Your task to perform on an android device: Search for pizza restaurants on Maps Image 0: 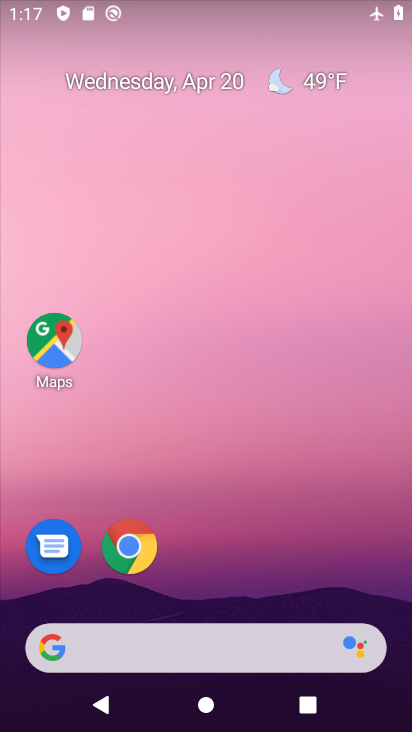
Step 0: click (391, 85)
Your task to perform on an android device: Search for pizza restaurants on Maps Image 1: 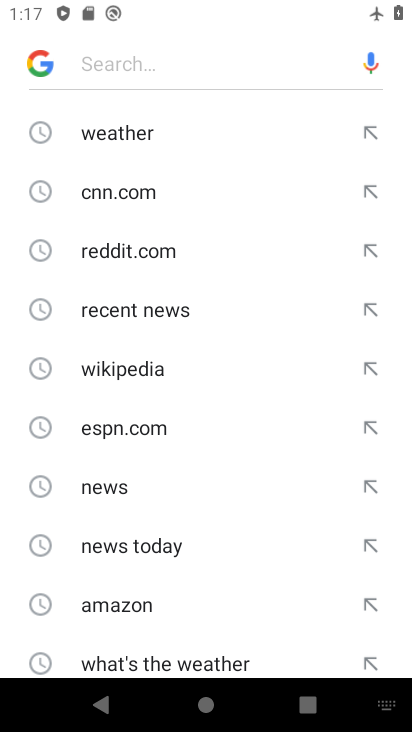
Step 1: press home button
Your task to perform on an android device: Search for pizza restaurants on Maps Image 2: 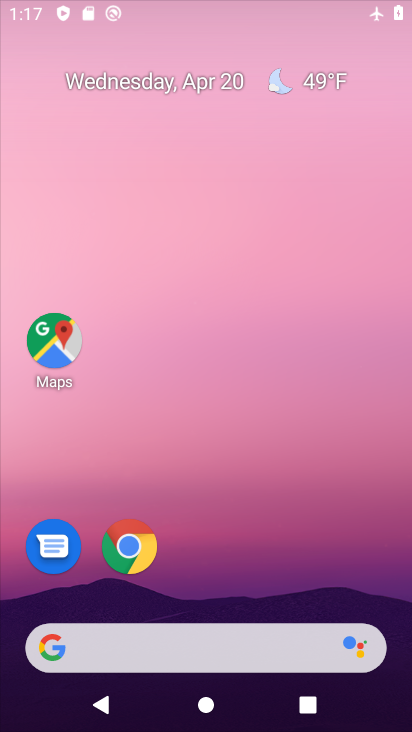
Step 2: drag from (221, 541) to (236, 193)
Your task to perform on an android device: Search for pizza restaurants on Maps Image 3: 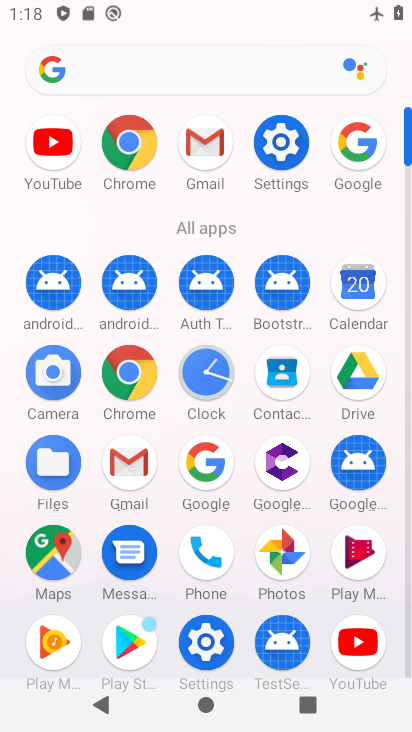
Step 3: click (52, 543)
Your task to perform on an android device: Search for pizza restaurants on Maps Image 4: 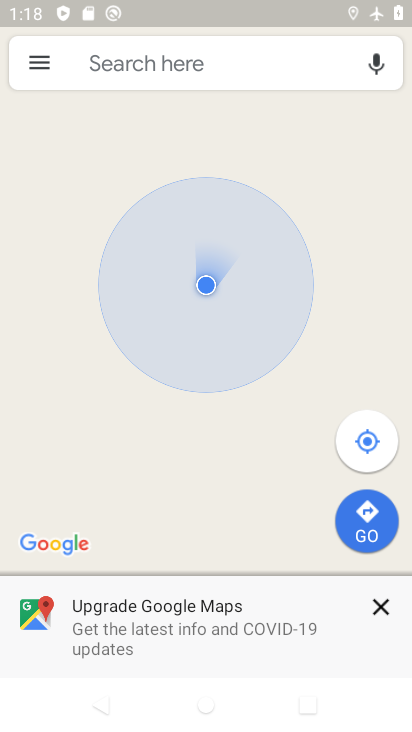
Step 4: click (242, 51)
Your task to perform on an android device: Search for pizza restaurants on Maps Image 5: 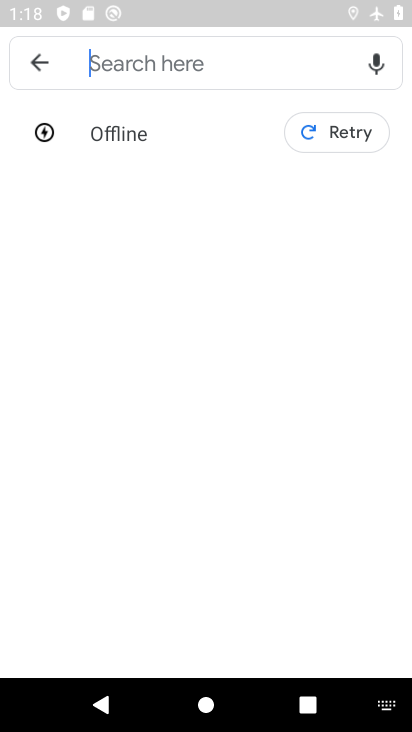
Step 5: type "pizza restaurants "
Your task to perform on an android device: Search for pizza restaurants on Maps Image 6: 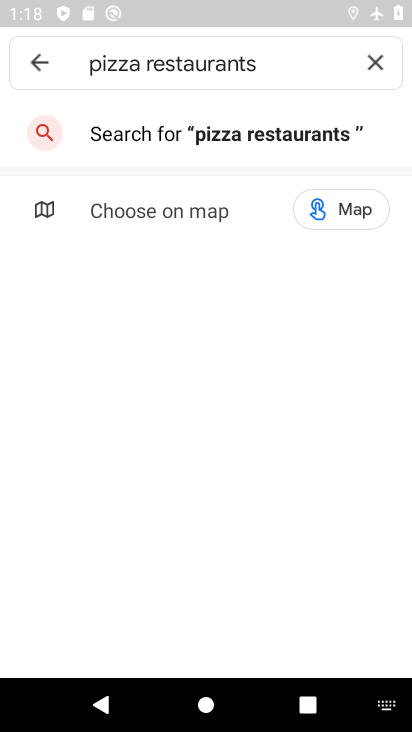
Step 6: click (276, 127)
Your task to perform on an android device: Search for pizza restaurants on Maps Image 7: 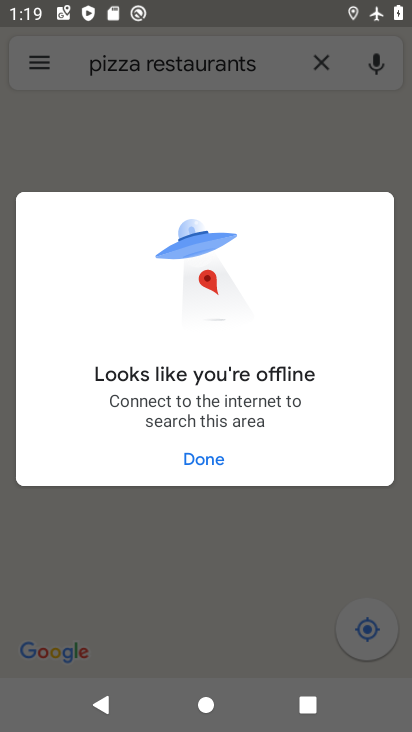
Step 7: task complete